Your task to perform on an android device: change the clock style Image 0: 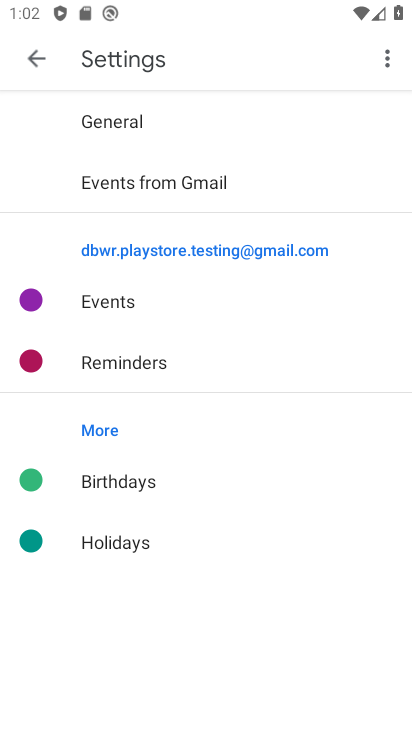
Step 0: drag from (187, 615) to (292, 169)
Your task to perform on an android device: change the clock style Image 1: 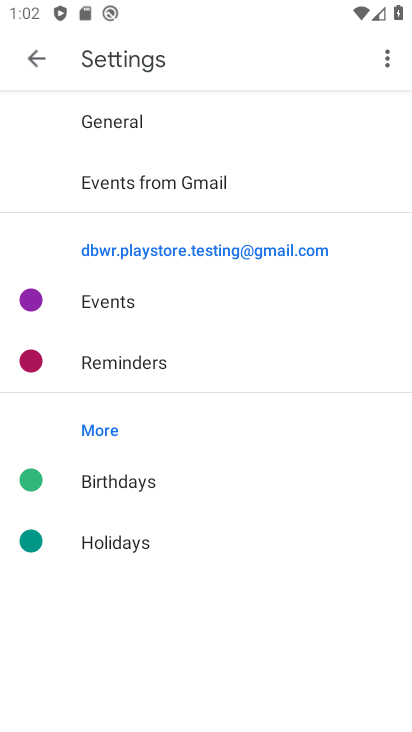
Step 1: press back button
Your task to perform on an android device: change the clock style Image 2: 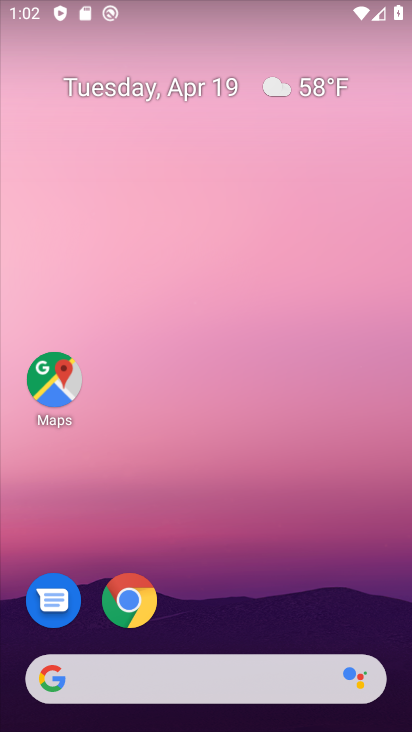
Step 2: drag from (143, 582) to (330, 93)
Your task to perform on an android device: change the clock style Image 3: 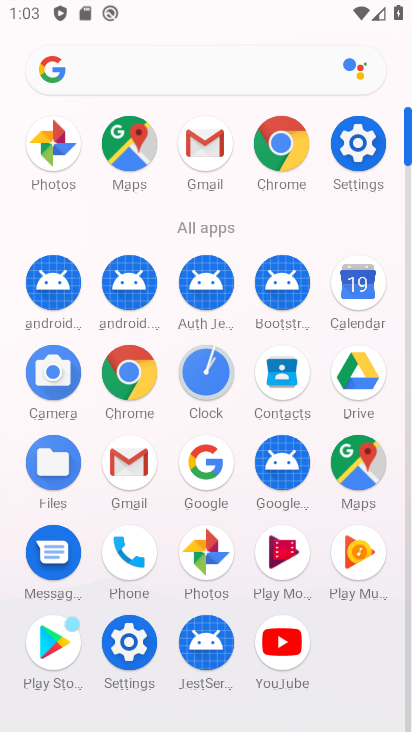
Step 3: click (210, 389)
Your task to perform on an android device: change the clock style Image 4: 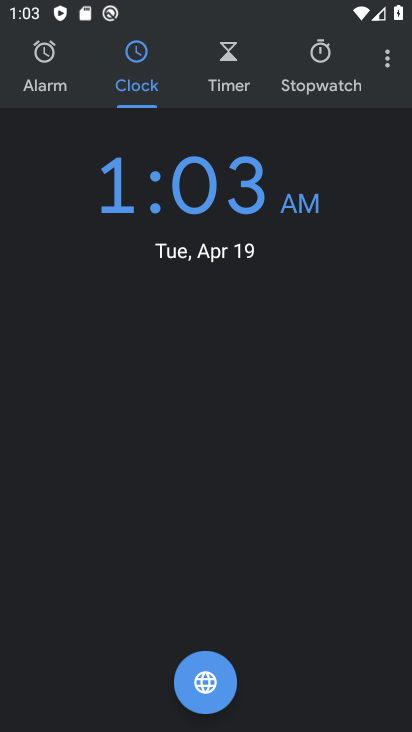
Step 4: click (389, 65)
Your task to perform on an android device: change the clock style Image 5: 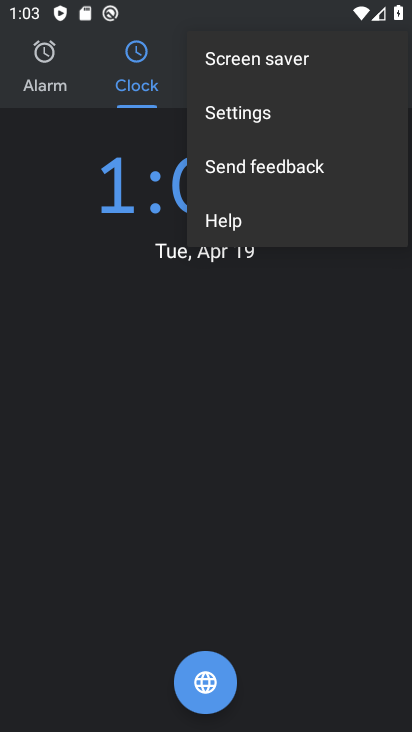
Step 5: click (270, 113)
Your task to perform on an android device: change the clock style Image 6: 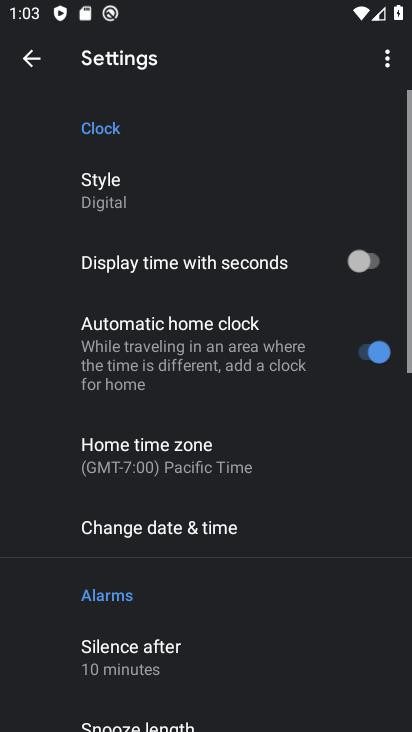
Step 6: click (250, 189)
Your task to perform on an android device: change the clock style Image 7: 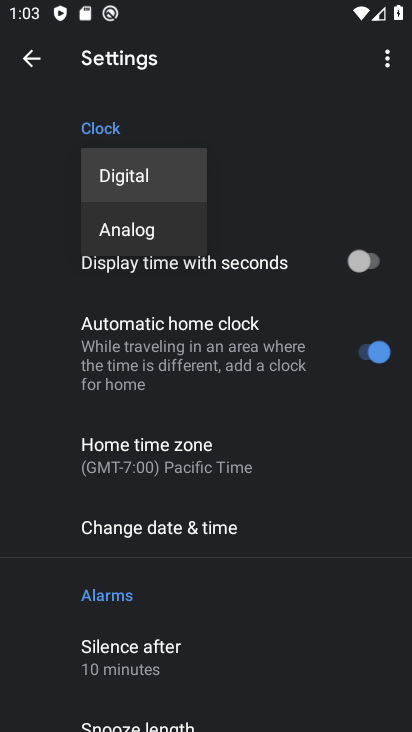
Step 7: click (125, 245)
Your task to perform on an android device: change the clock style Image 8: 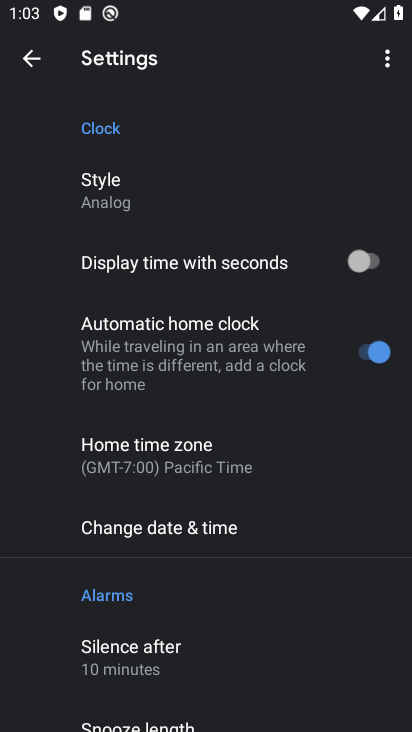
Step 8: task complete